Your task to perform on an android device: Open accessibility settings Image 0: 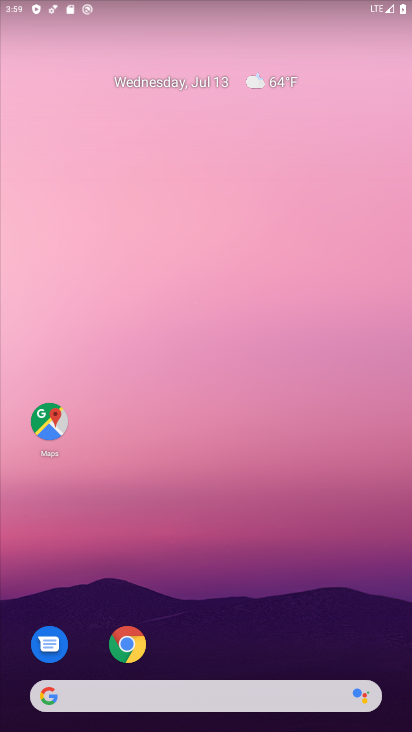
Step 0: drag from (278, 614) to (323, 9)
Your task to perform on an android device: Open accessibility settings Image 1: 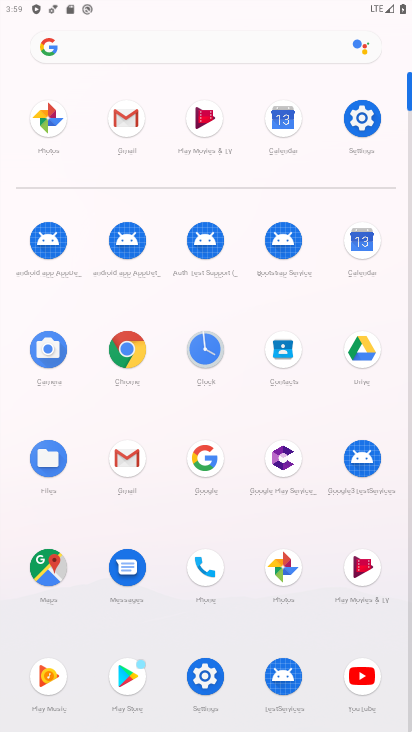
Step 1: click (359, 125)
Your task to perform on an android device: Open accessibility settings Image 2: 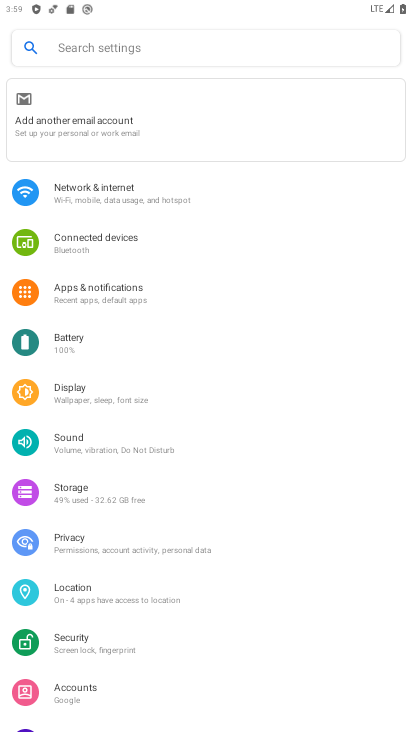
Step 2: drag from (123, 662) to (212, 212)
Your task to perform on an android device: Open accessibility settings Image 3: 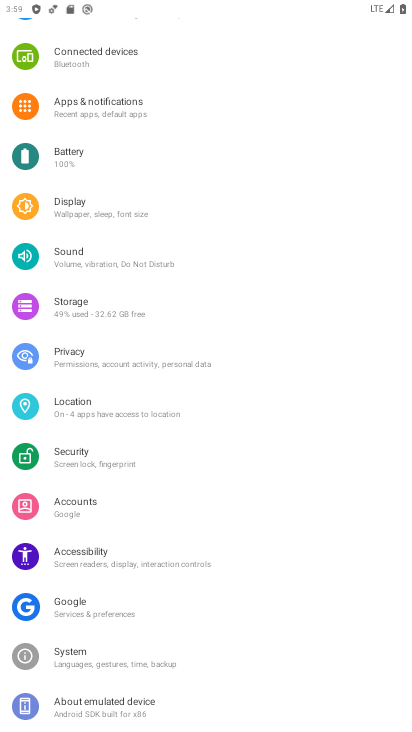
Step 3: click (83, 562)
Your task to perform on an android device: Open accessibility settings Image 4: 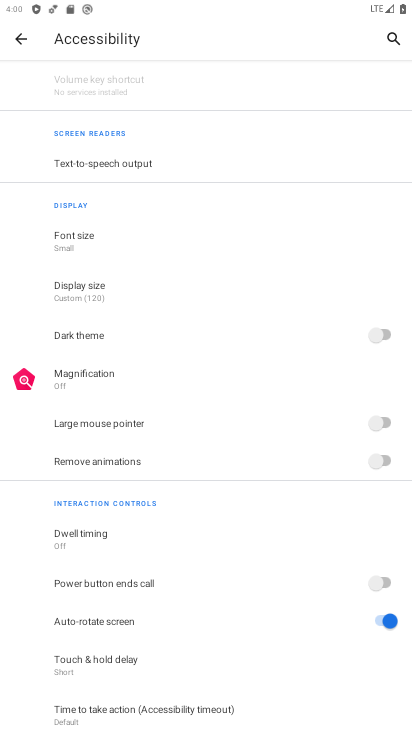
Step 4: task complete